Your task to perform on an android device: Go to Android settings Image 0: 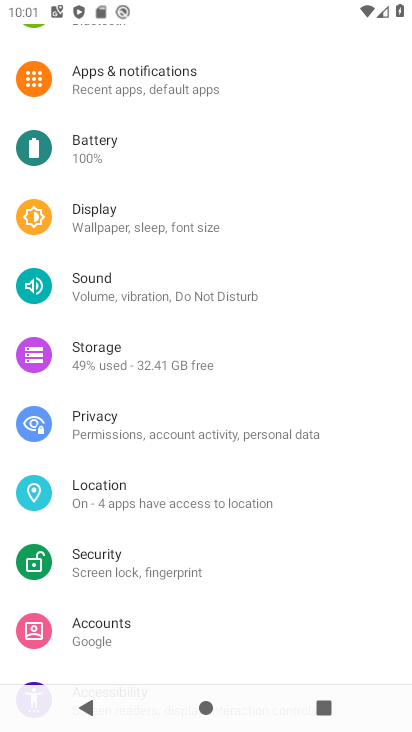
Step 0: drag from (186, 443) to (135, 111)
Your task to perform on an android device: Go to Android settings Image 1: 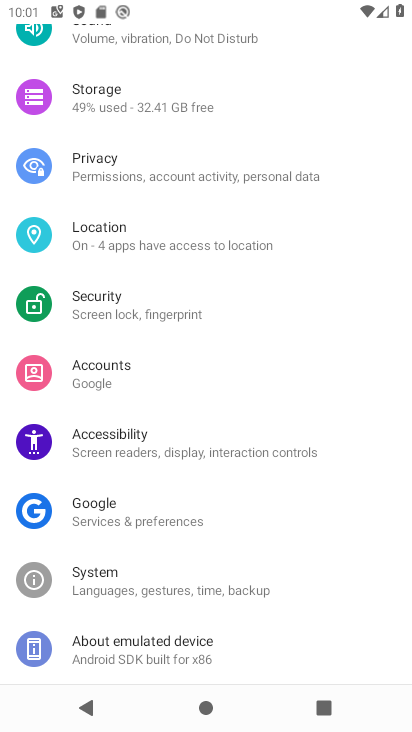
Step 1: task complete